Your task to perform on an android device: What is the news today? Image 0: 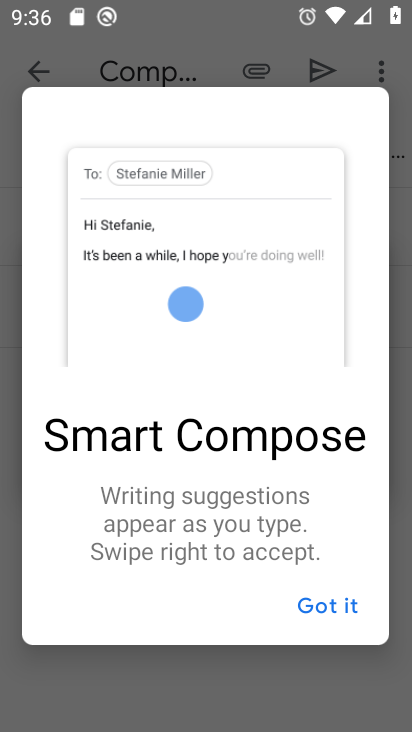
Step 0: press home button
Your task to perform on an android device: What is the news today? Image 1: 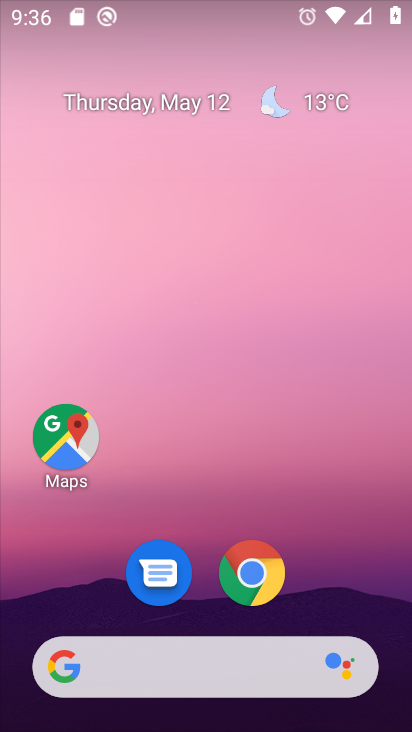
Step 1: drag from (2, 255) to (315, 277)
Your task to perform on an android device: What is the news today? Image 2: 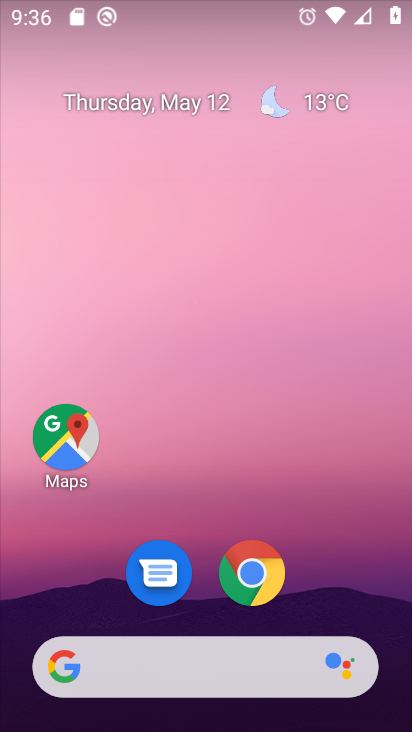
Step 2: drag from (2, 152) to (139, 160)
Your task to perform on an android device: What is the news today? Image 3: 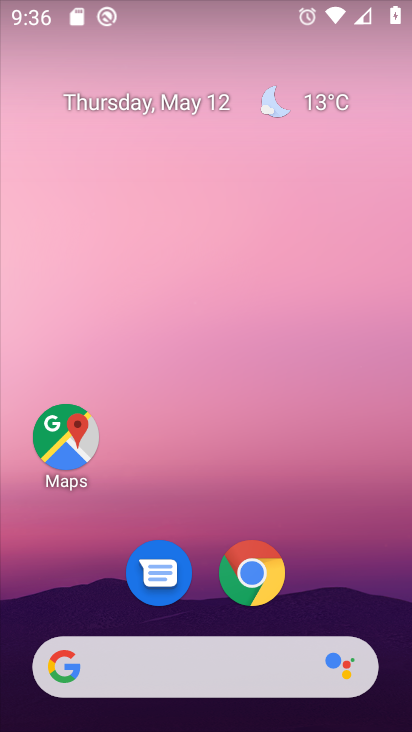
Step 3: drag from (105, 296) to (317, 307)
Your task to perform on an android device: What is the news today? Image 4: 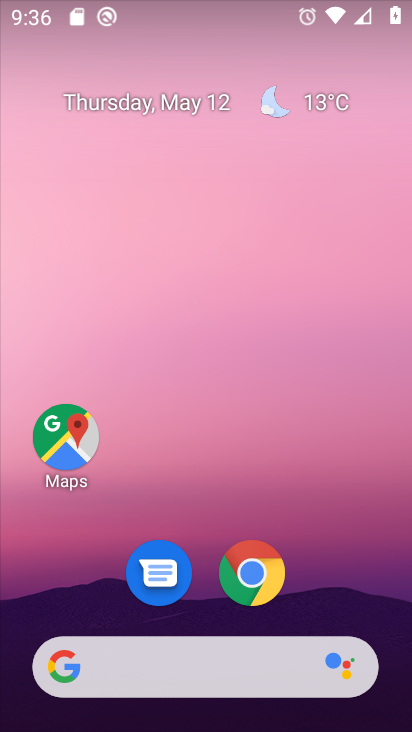
Step 4: drag from (7, 130) to (338, 165)
Your task to perform on an android device: What is the news today? Image 5: 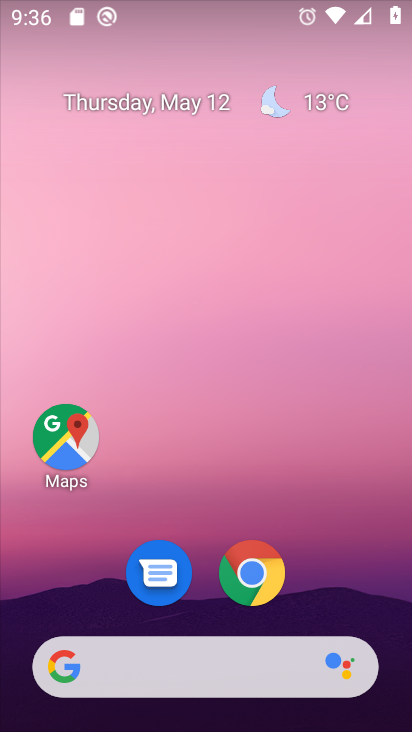
Step 5: drag from (5, 144) to (276, 188)
Your task to perform on an android device: What is the news today? Image 6: 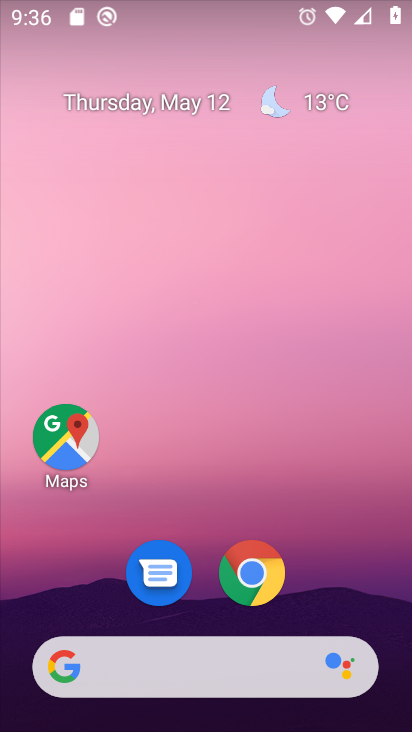
Step 6: drag from (255, 195) to (337, 193)
Your task to perform on an android device: What is the news today? Image 7: 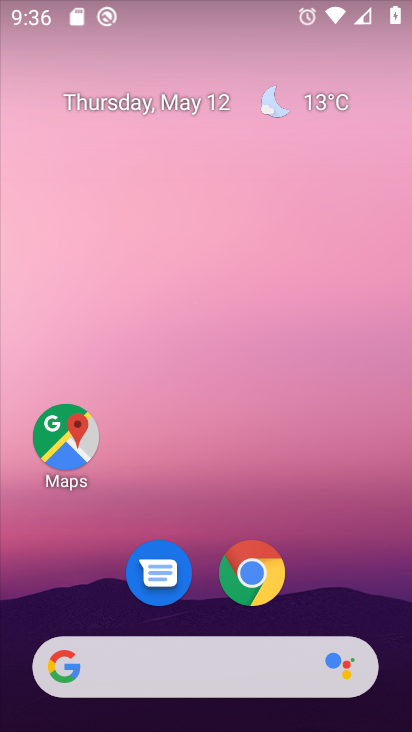
Step 7: click (379, 184)
Your task to perform on an android device: What is the news today? Image 8: 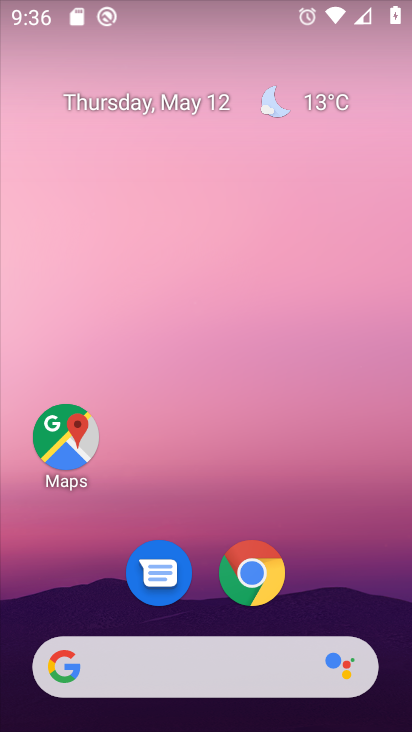
Step 8: drag from (0, 152) to (240, 189)
Your task to perform on an android device: What is the news today? Image 9: 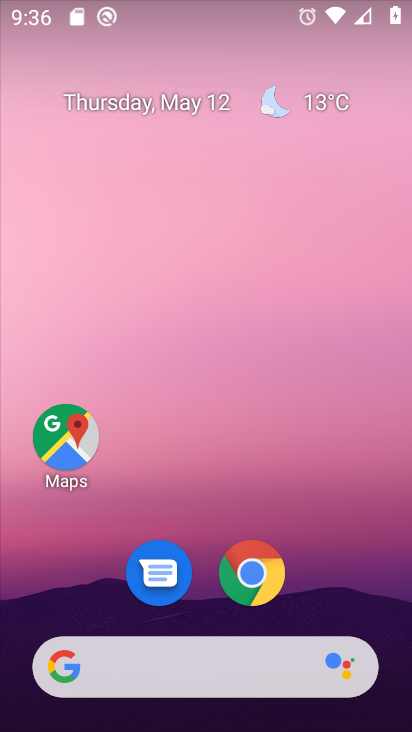
Step 9: click (142, 199)
Your task to perform on an android device: What is the news today? Image 10: 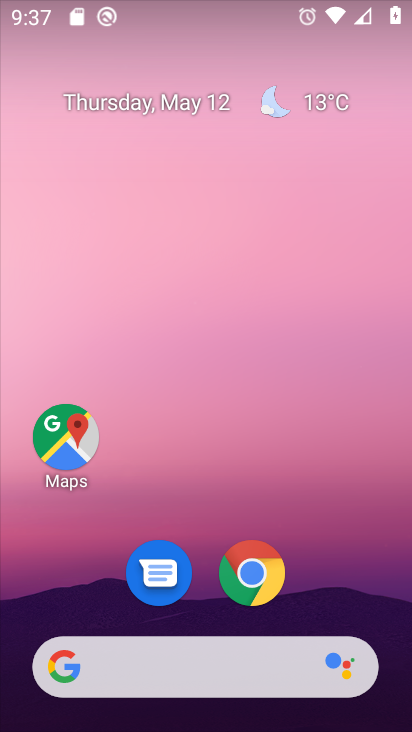
Step 10: drag from (160, 232) to (410, 235)
Your task to perform on an android device: What is the news today? Image 11: 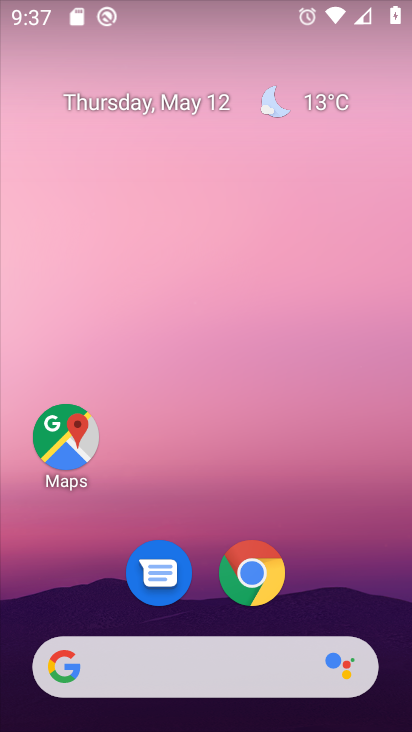
Step 11: drag from (3, 170) to (271, 194)
Your task to perform on an android device: What is the news today? Image 12: 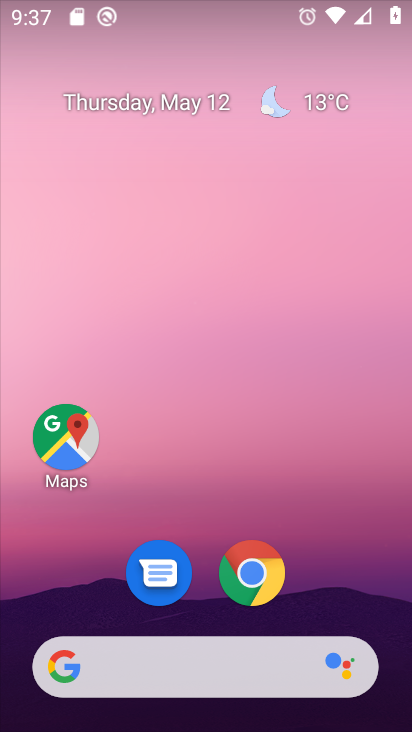
Step 12: drag from (11, 134) to (291, 192)
Your task to perform on an android device: What is the news today? Image 13: 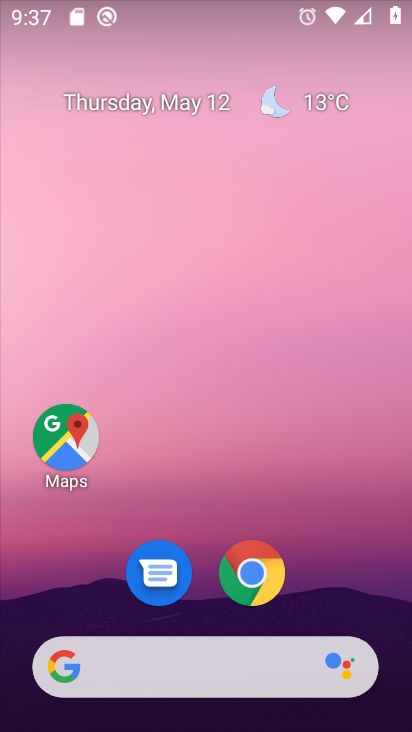
Step 13: drag from (20, 138) to (288, 214)
Your task to perform on an android device: What is the news today? Image 14: 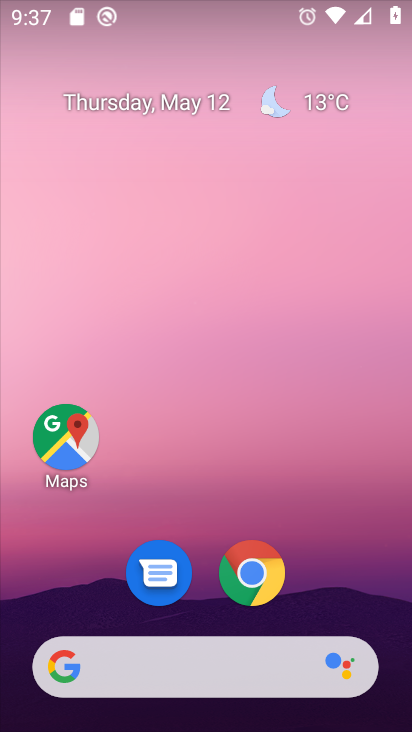
Step 14: drag from (388, 684) to (337, 236)
Your task to perform on an android device: What is the news today? Image 15: 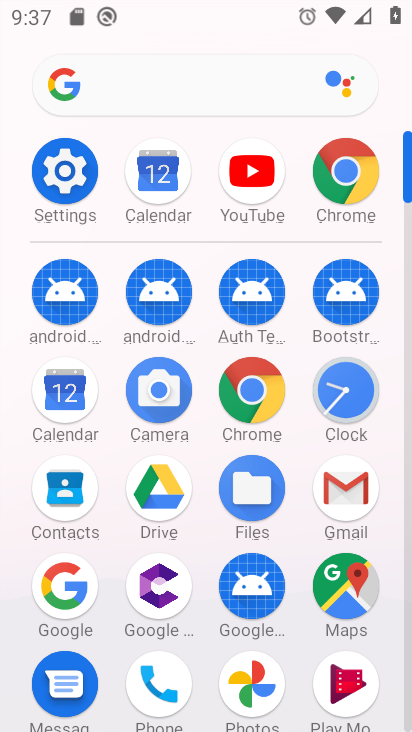
Step 15: click (55, 594)
Your task to perform on an android device: What is the news today? Image 16: 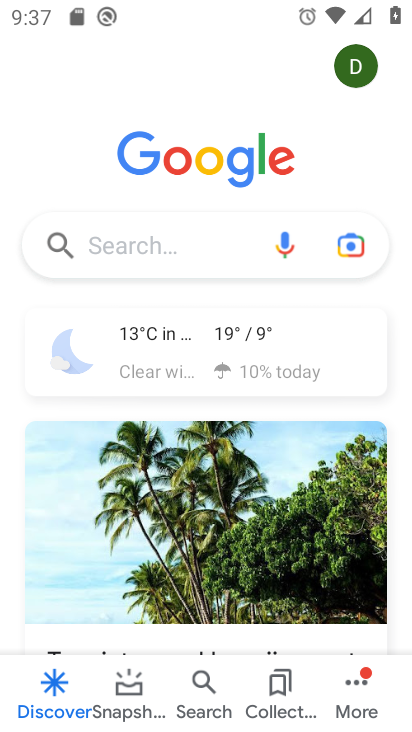
Step 16: task complete